Your task to perform on an android device: Search for pizza restaurants on Maps Image 0: 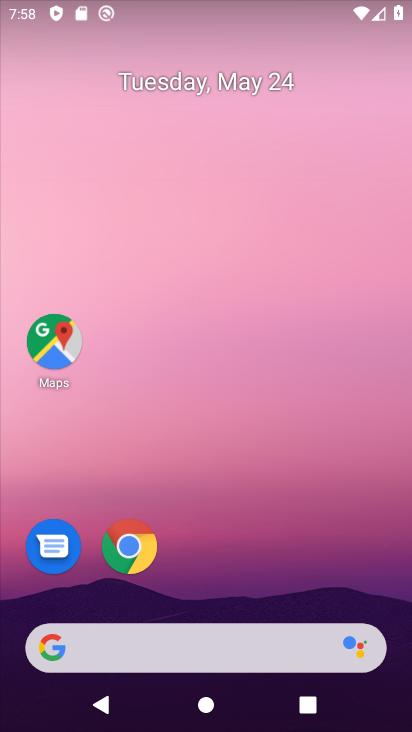
Step 0: click (51, 346)
Your task to perform on an android device: Search for pizza restaurants on Maps Image 1: 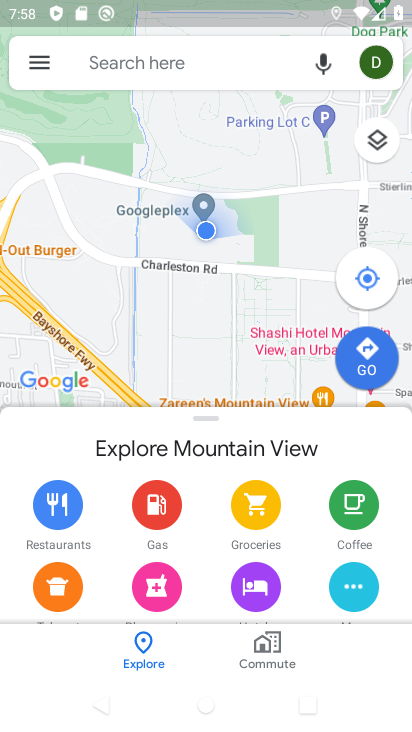
Step 1: click (183, 69)
Your task to perform on an android device: Search for pizza restaurants on Maps Image 2: 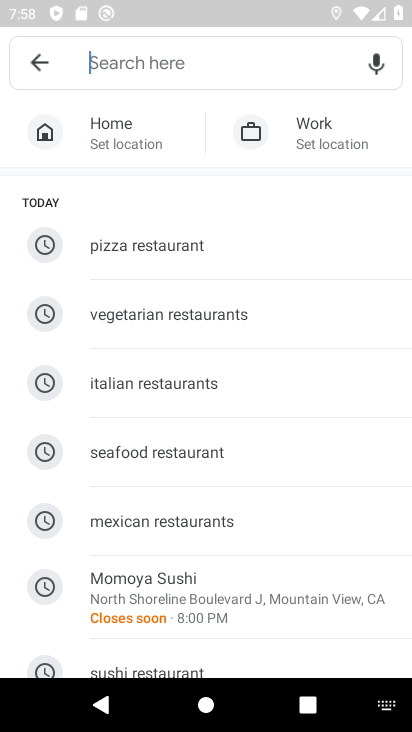
Step 2: click (169, 235)
Your task to perform on an android device: Search for pizza restaurants on Maps Image 3: 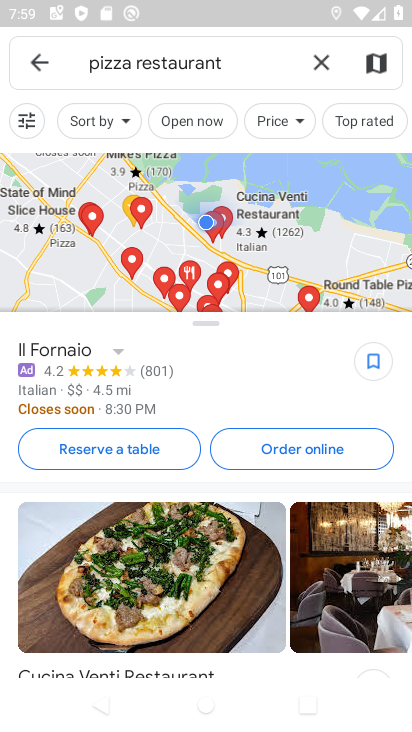
Step 3: task complete